Your task to perform on an android device: Open Google Maps and go to "Timeline" Image 0: 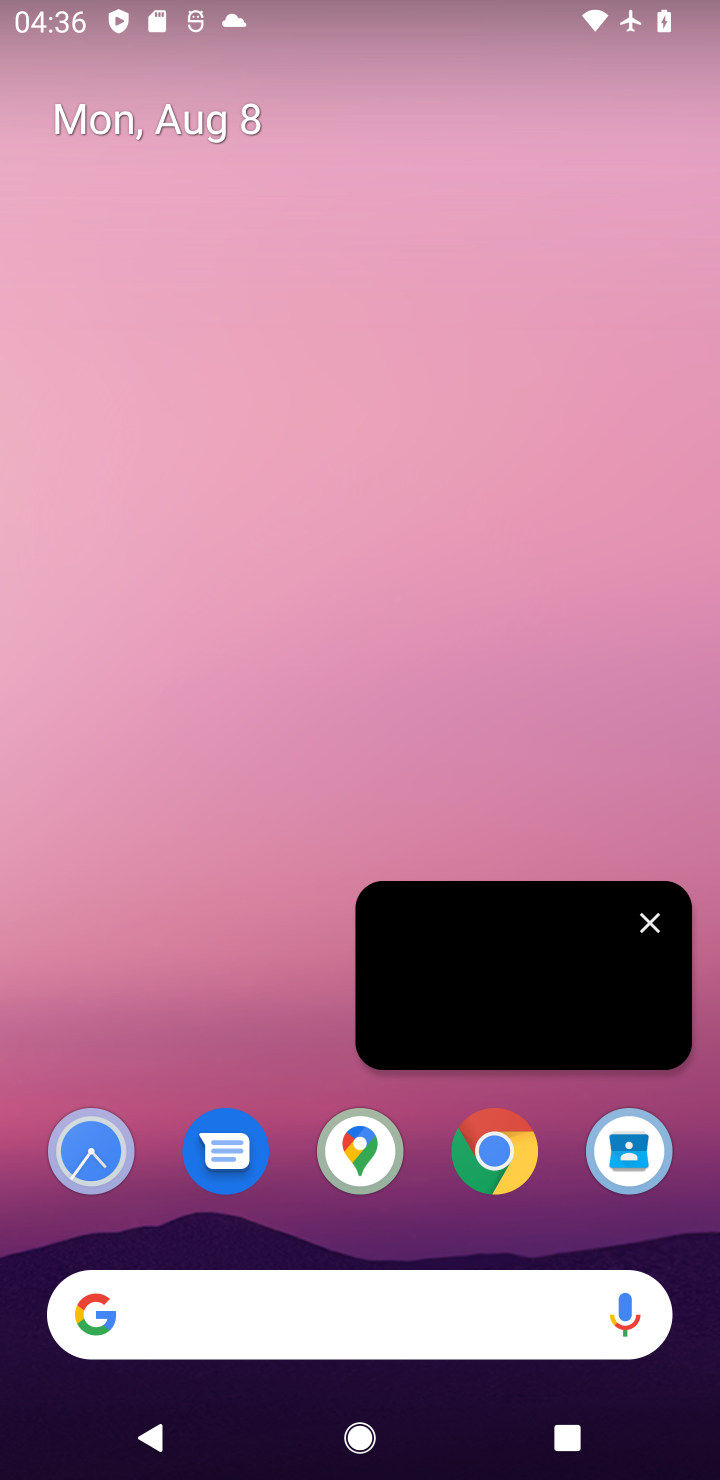
Step 0: click (666, 913)
Your task to perform on an android device: Open Google Maps and go to "Timeline" Image 1: 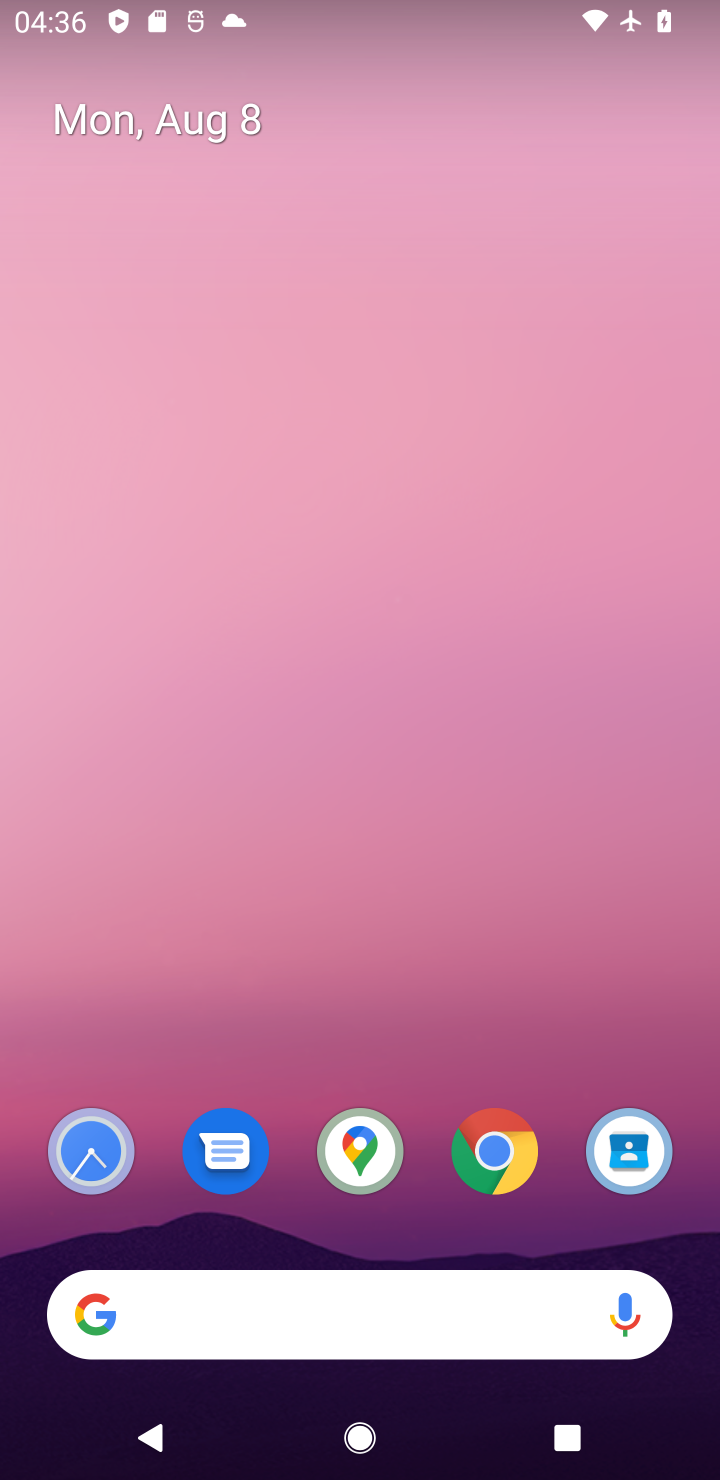
Step 1: click (357, 1040)
Your task to perform on an android device: Open Google Maps and go to "Timeline" Image 2: 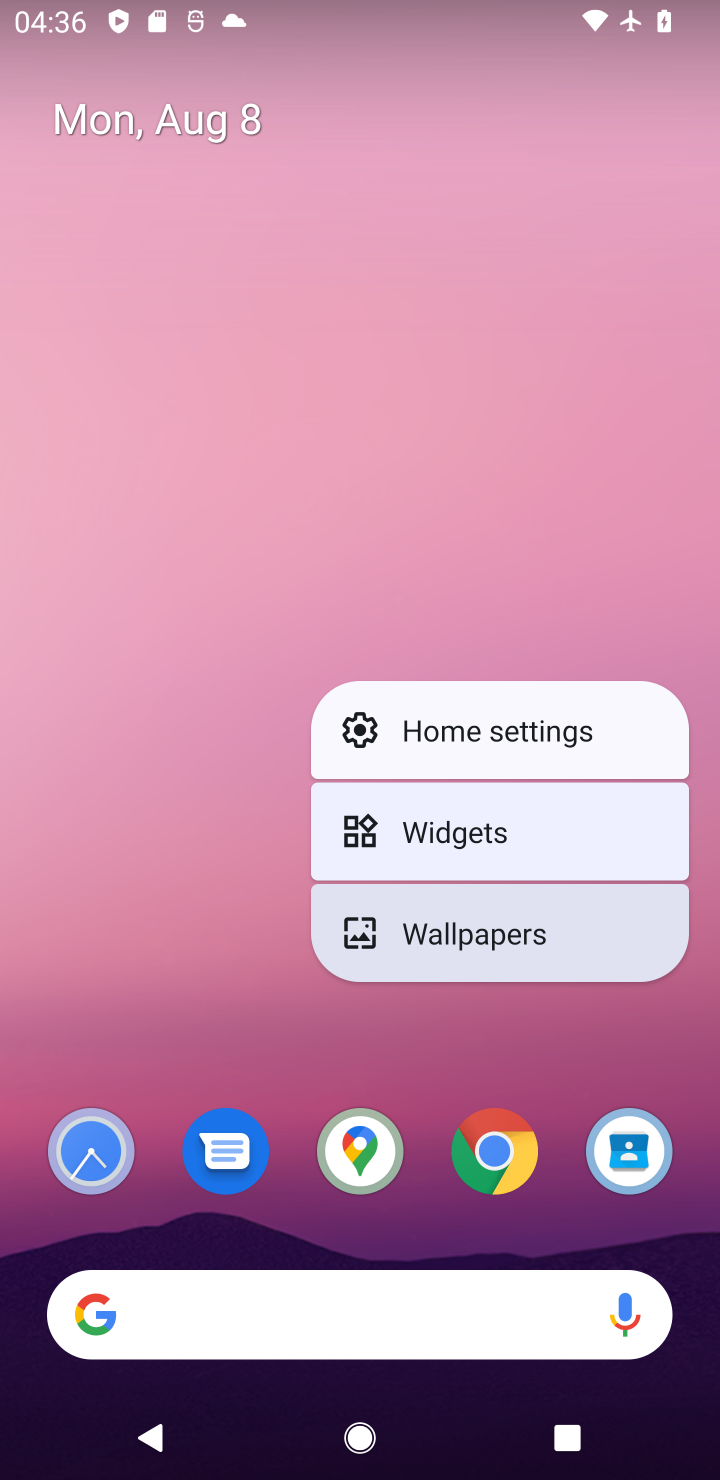
Step 2: click (362, 1120)
Your task to perform on an android device: Open Google Maps and go to "Timeline" Image 3: 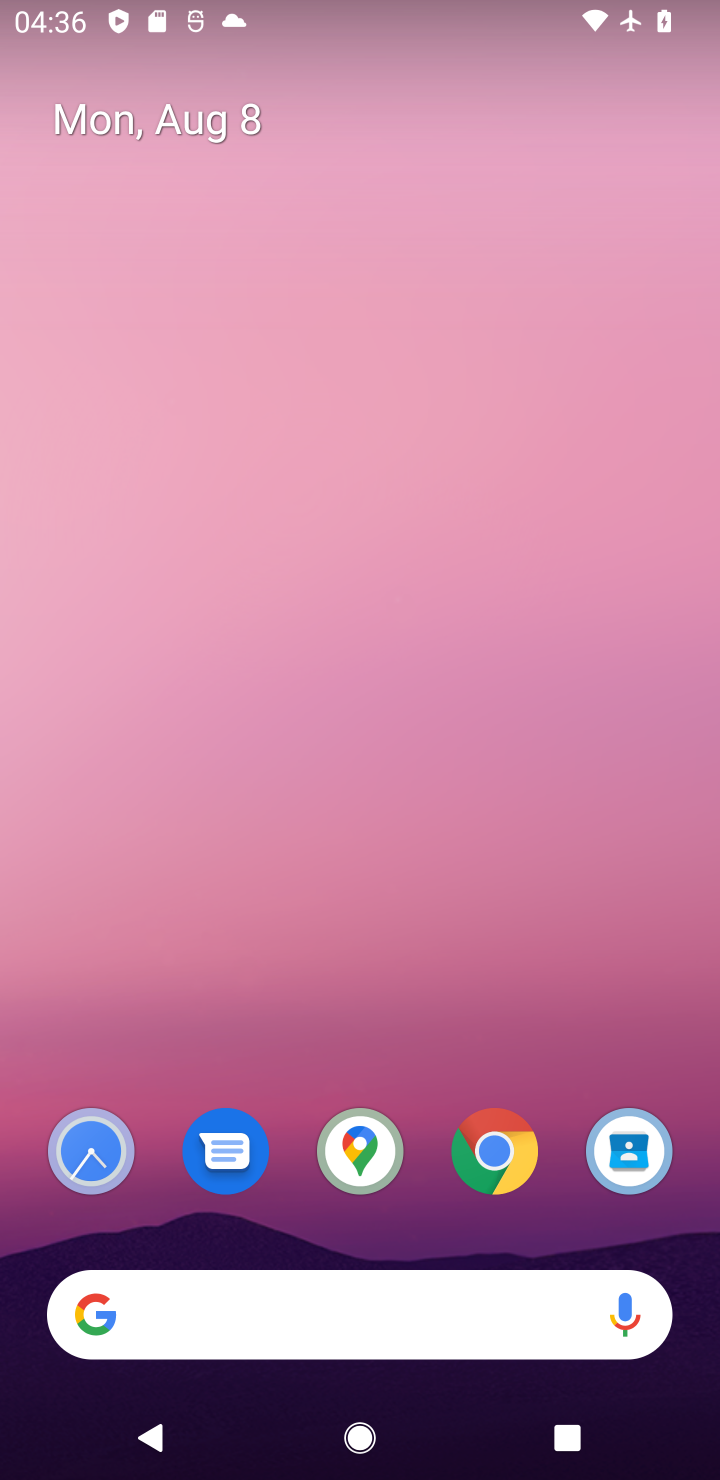
Step 3: click (359, 1138)
Your task to perform on an android device: Open Google Maps and go to "Timeline" Image 4: 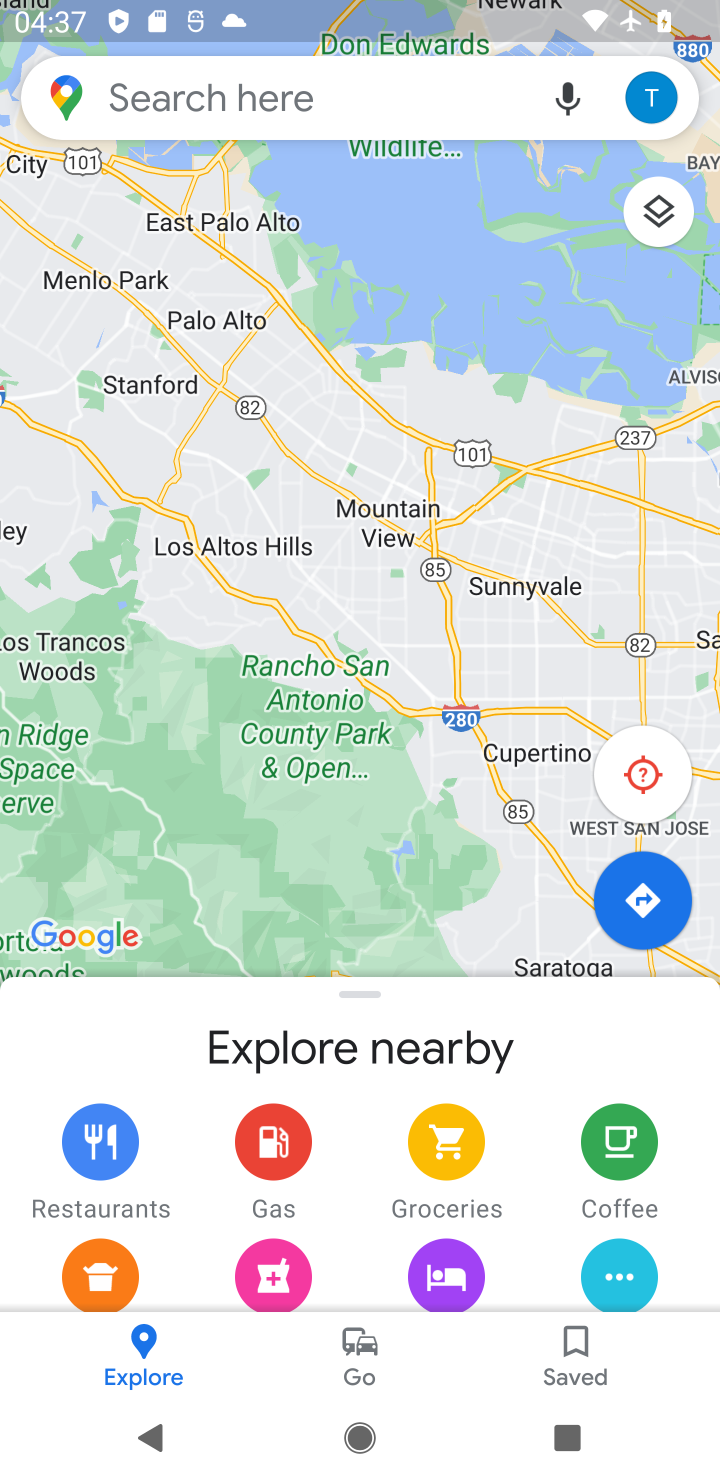
Step 4: click (636, 111)
Your task to perform on an android device: Open Google Maps and go to "Timeline" Image 5: 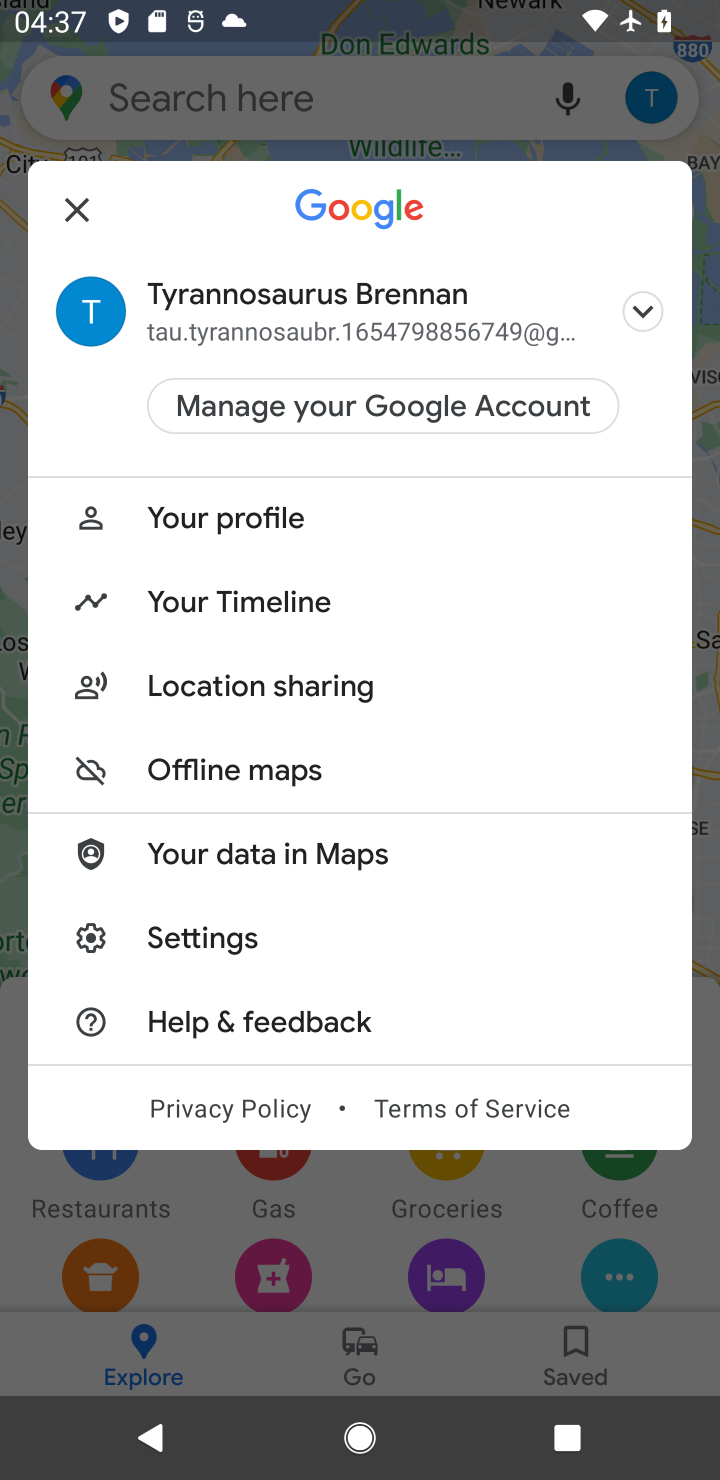
Step 5: click (252, 604)
Your task to perform on an android device: Open Google Maps and go to "Timeline" Image 6: 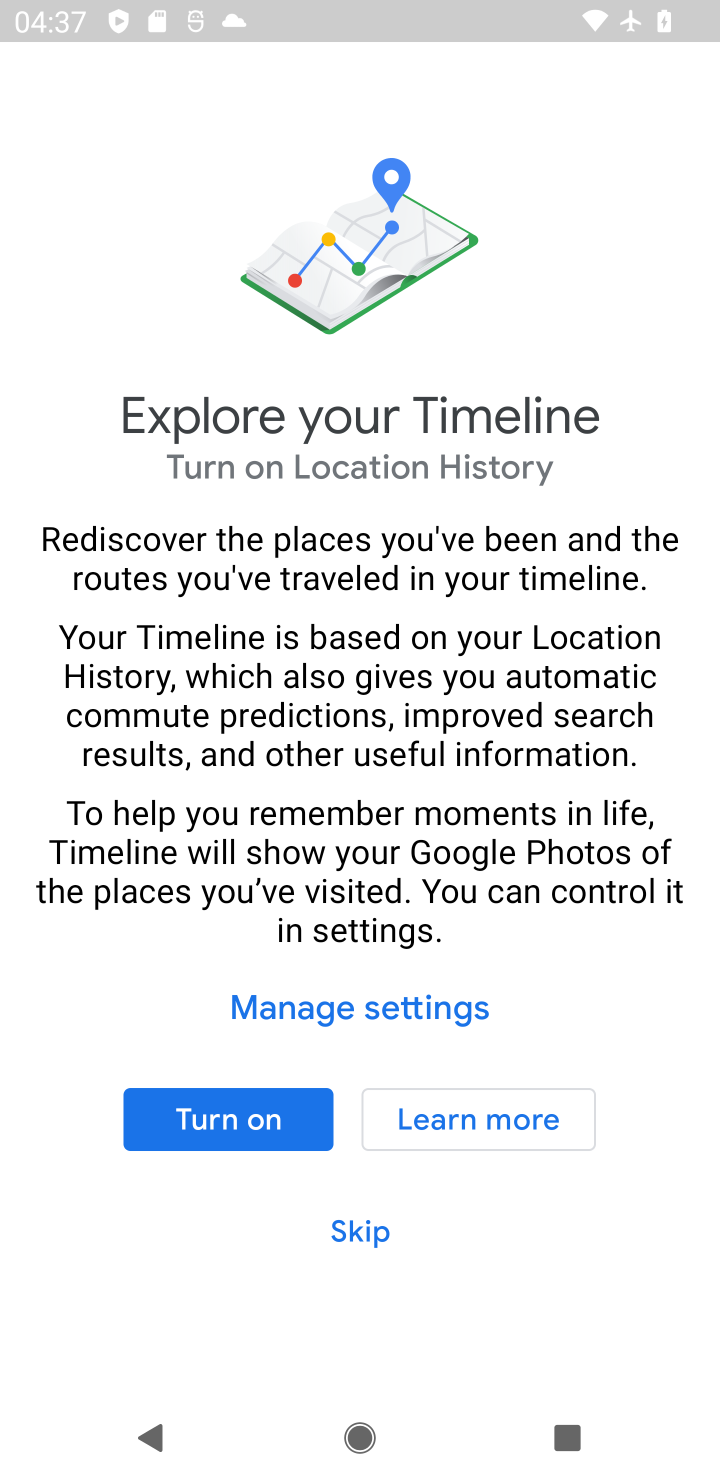
Step 6: click (354, 1236)
Your task to perform on an android device: Open Google Maps and go to "Timeline" Image 7: 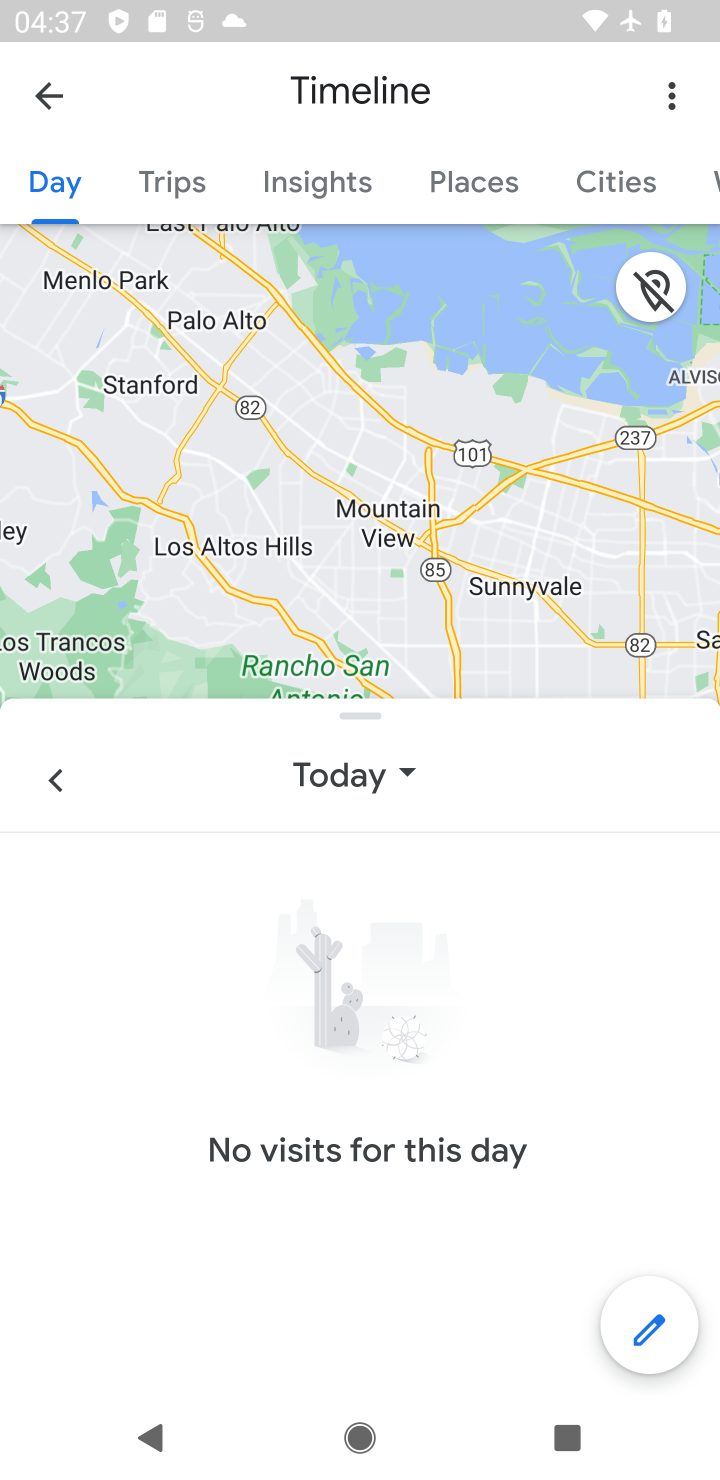
Step 7: task complete